Your task to perform on an android device: Go to battery settings Image 0: 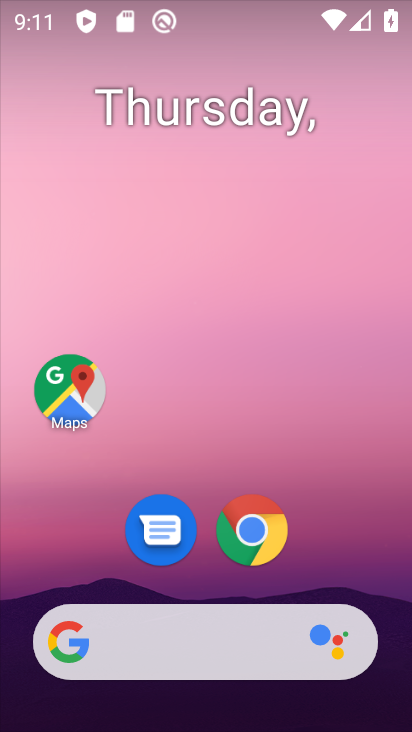
Step 0: drag from (330, 555) to (237, 39)
Your task to perform on an android device: Go to battery settings Image 1: 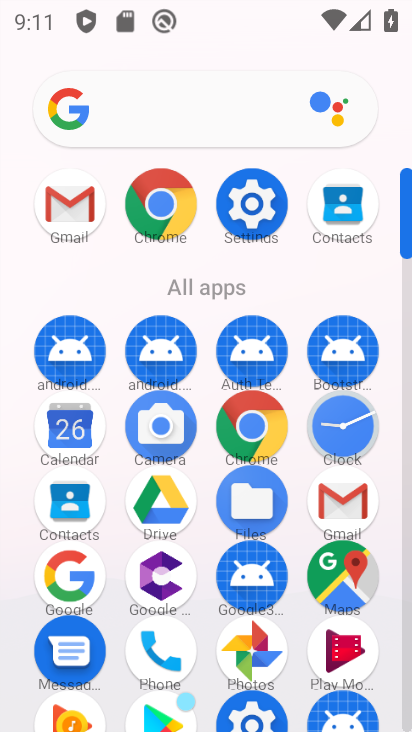
Step 1: drag from (6, 623) to (1, 257)
Your task to perform on an android device: Go to battery settings Image 2: 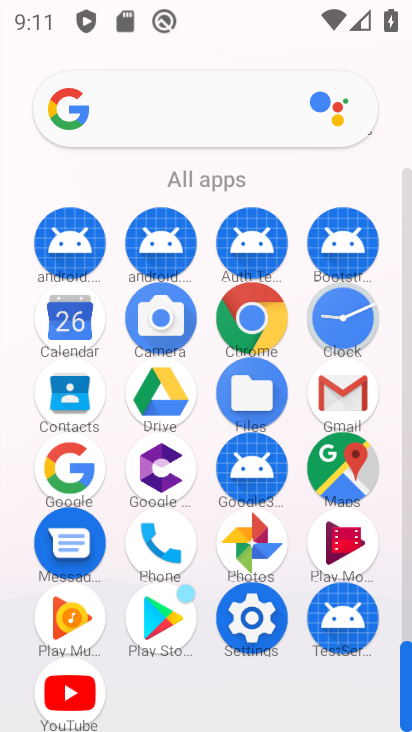
Step 2: click (251, 617)
Your task to perform on an android device: Go to battery settings Image 3: 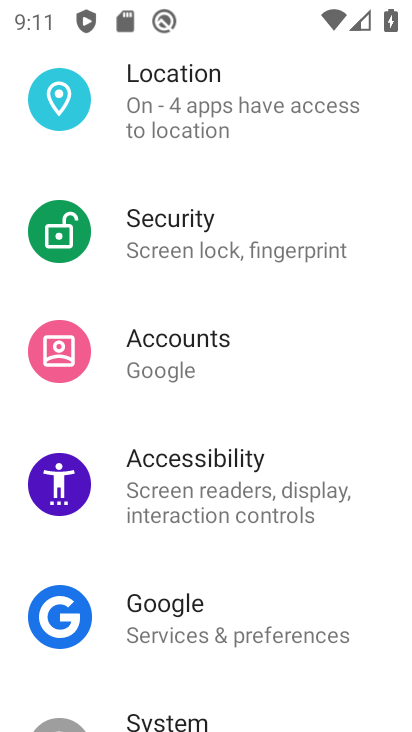
Step 3: drag from (298, 131) to (298, 537)
Your task to perform on an android device: Go to battery settings Image 4: 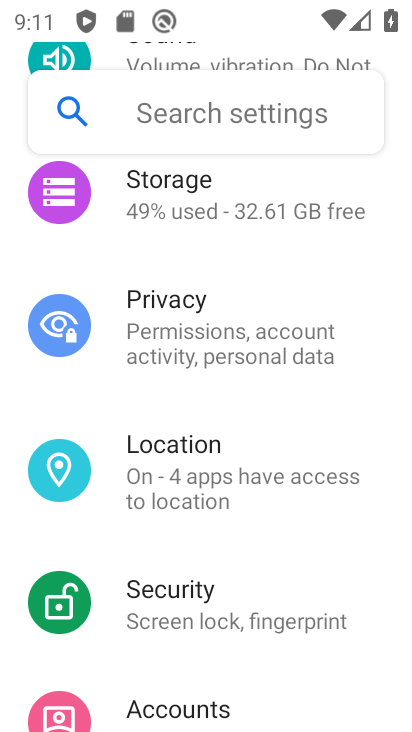
Step 4: drag from (280, 250) to (287, 624)
Your task to perform on an android device: Go to battery settings Image 5: 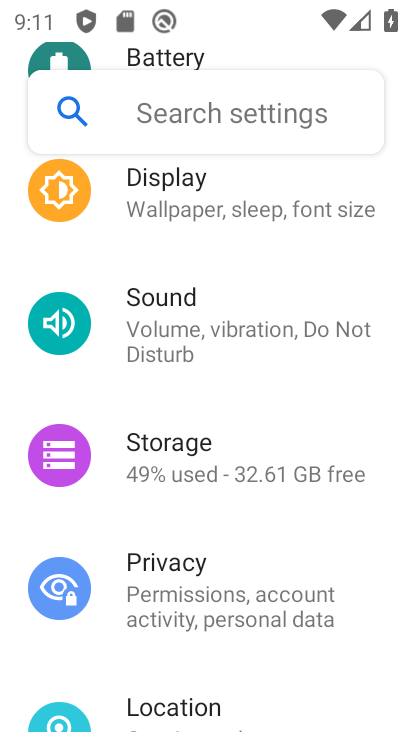
Step 5: drag from (281, 251) to (300, 624)
Your task to perform on an android device: Go to battery settings Image 6: 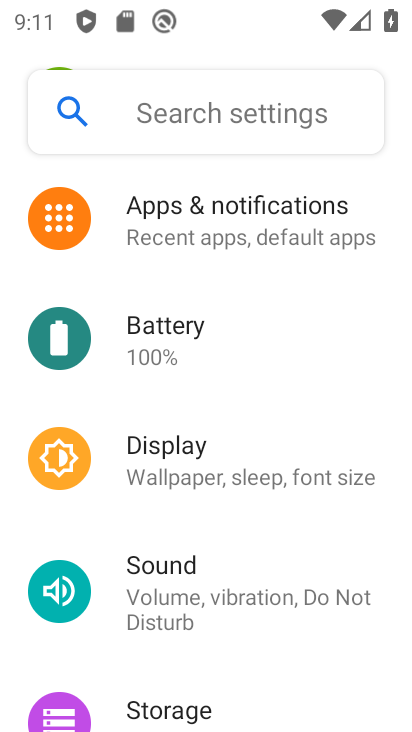
Step 6: click (218, 332)
Your task to perform on an android device: Go to battery settings Image 7: 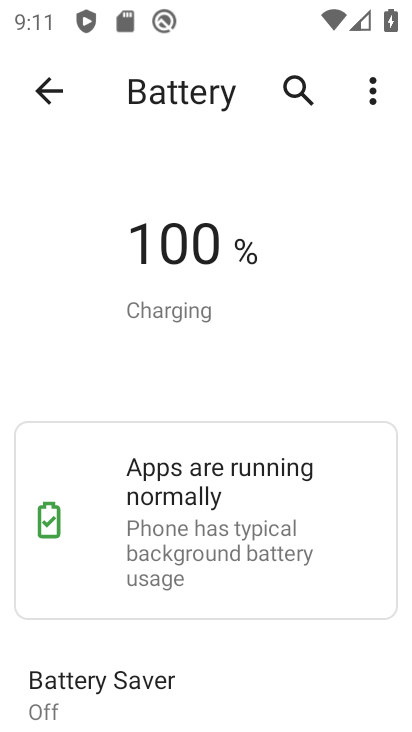
Step 7: task complete